Your task to perform on an android device: find snoozed emails in the gmail app Image 0: 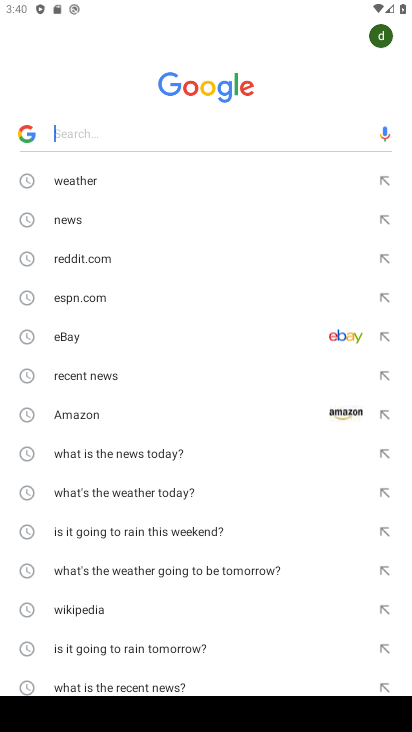
Step 0: press home button
Your task to perform on an android device: find snoozed emails in the gmail app Image 1: 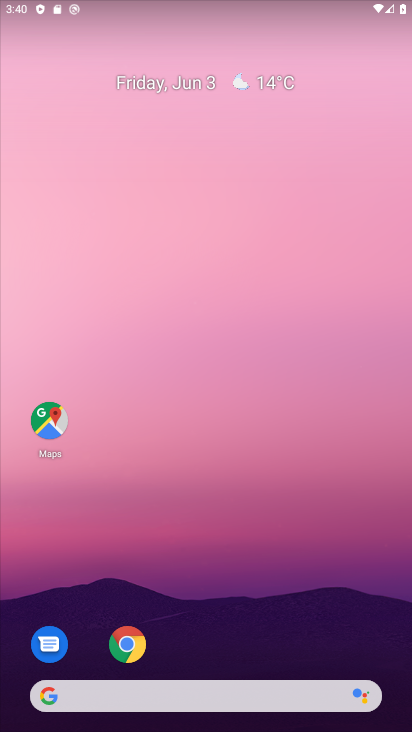
Step 1: drag from (233, 620) to (199, 307)
Your task to perform on an android device: find snoozed emails in the gmail app Image 2: 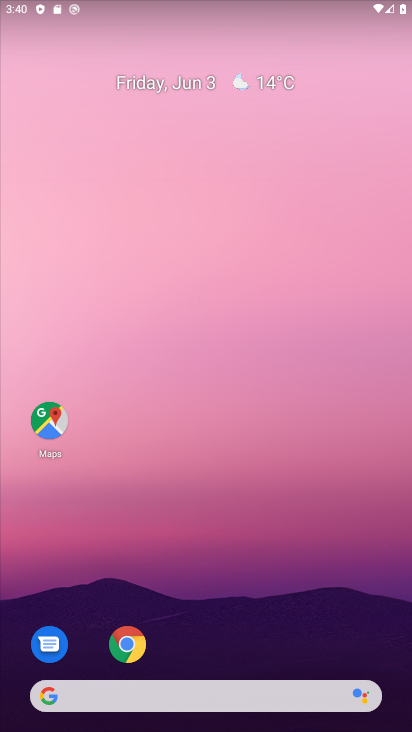
Step 2: drag from (182, 620) to (232, 55)
Your task to perform on an android device: find snoozed emails in the gmail app Image 3: 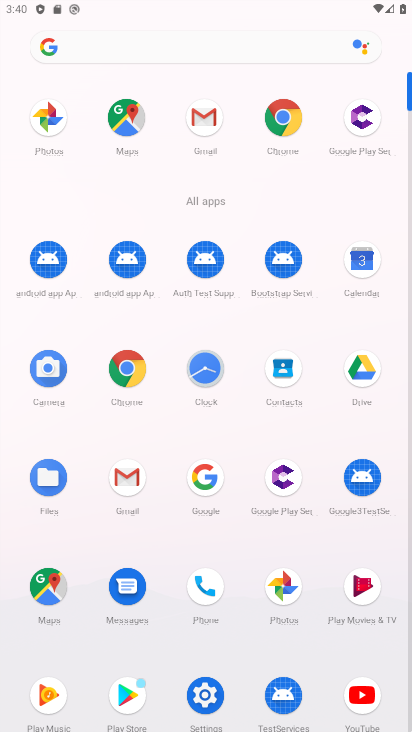
Step 3: click (204, 111)
Your task to perform on an android device: find snoozed emails in the gmail app Image 4: 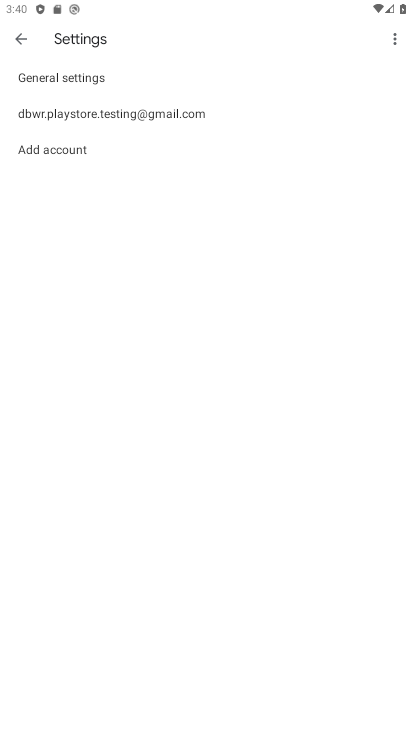
Step 4: click (204, 111)
Your task to perform on an android device: find snoozed emails in the gmail app Image 5: 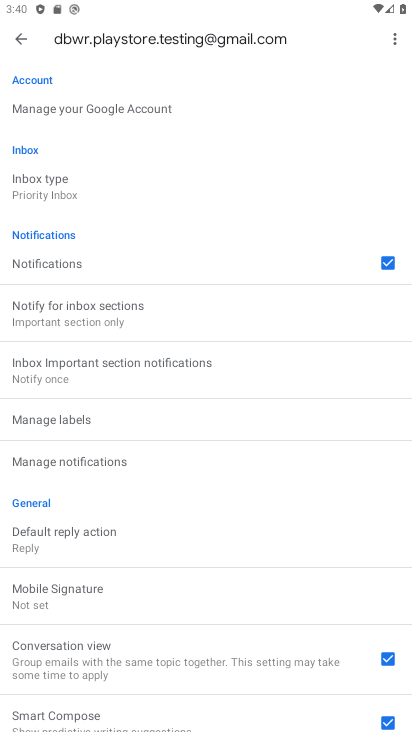
Step 5: click (35, 44)
Your task to perform on an android device: find snoozed emails in the gmail app Image 6: 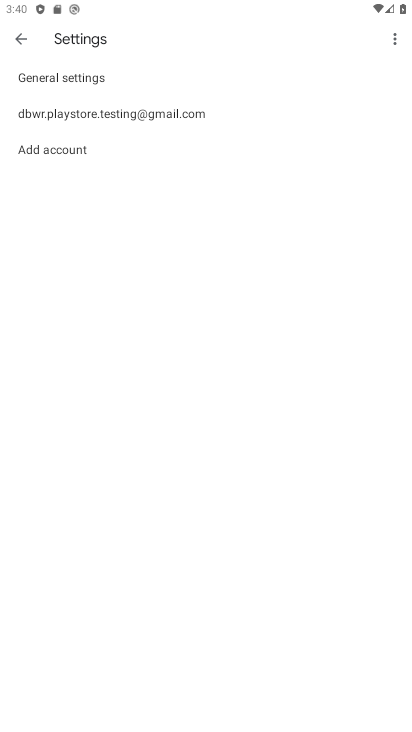
Step 6: click (35, 44)
Your task to perform on an android device: find snoozed emails in the gmail app Image 7: 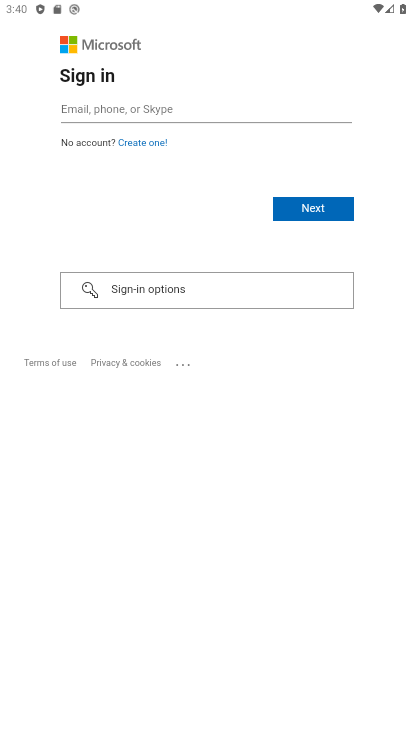
Step 7: press back button
Your task to perform on an android device: find snoozed emails in the gmail app Image 8: 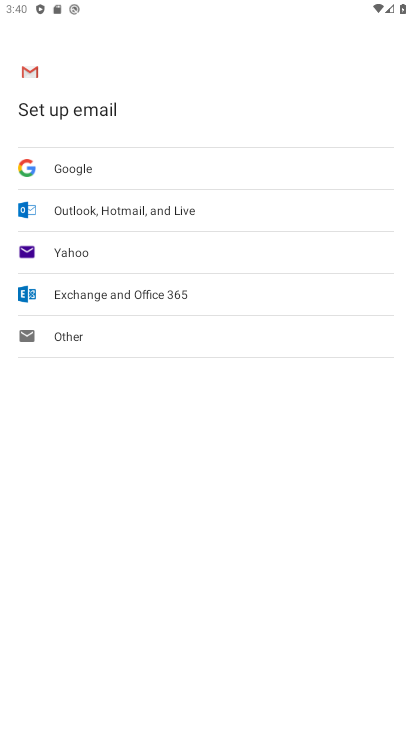
Step 8: press back button
Your task to perform on an android device: find snoozed emails in the gmail app Image 9: 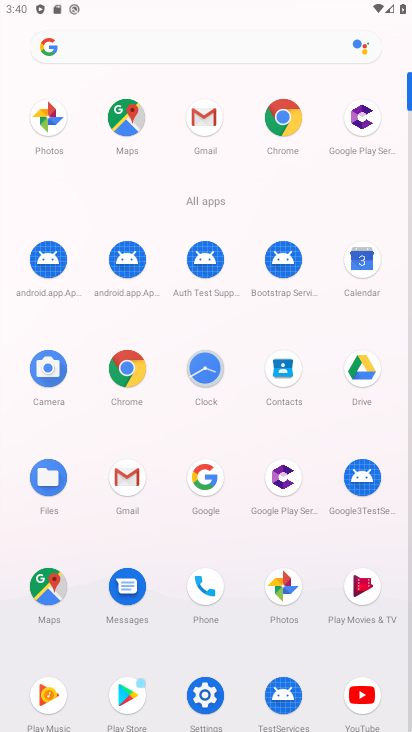
Step 9: click (218, 117)
Your task to perform on an android device: find snoozed emails in the gmail app Image 10: 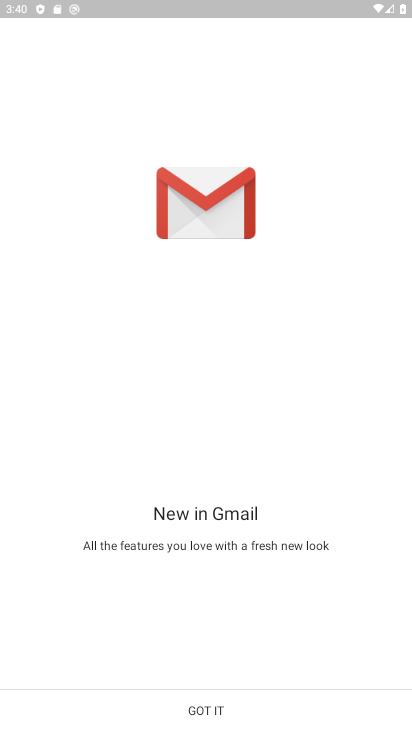
Step 10: click (167, 720)
Your task to perform on an android device: find snoozed emails in the gmail app Image 11: 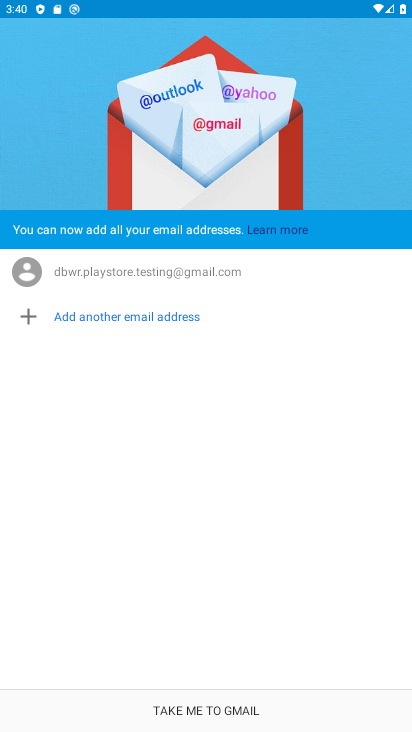
Step 11: click (193, 721)
Your task to perform on an android device: find snoozed emails in the gmail app Image 12: 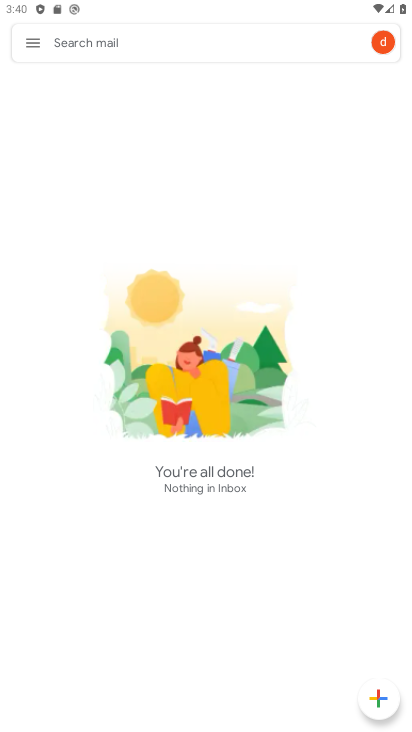
Step 12: click (30, 43)
Your task to perform on an android device: find snoozed emails in the gmail app Image 13: 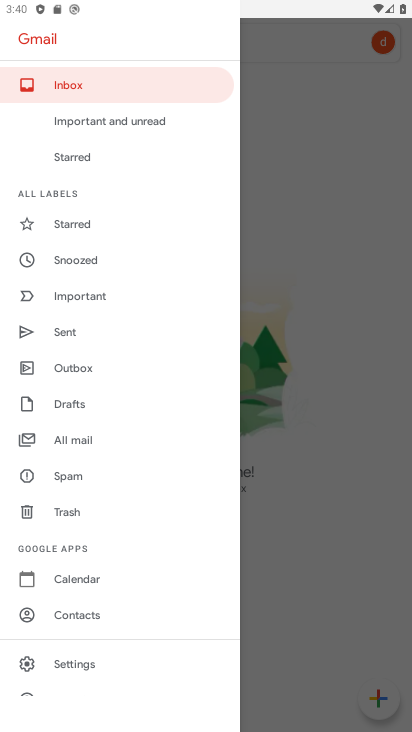
Step 13: click (64, 260)
Your task to perform on an android device: find snoozed emails in the gmail app Image 14: 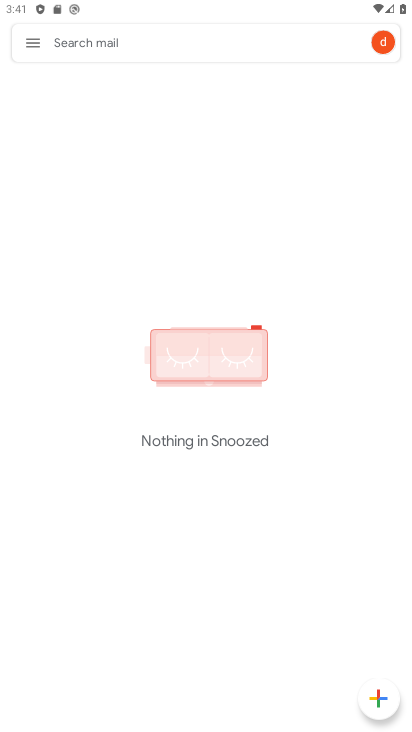
Step 14: task complete